Your task to perform on an android device: delete a single message in the gmail app Image 0: 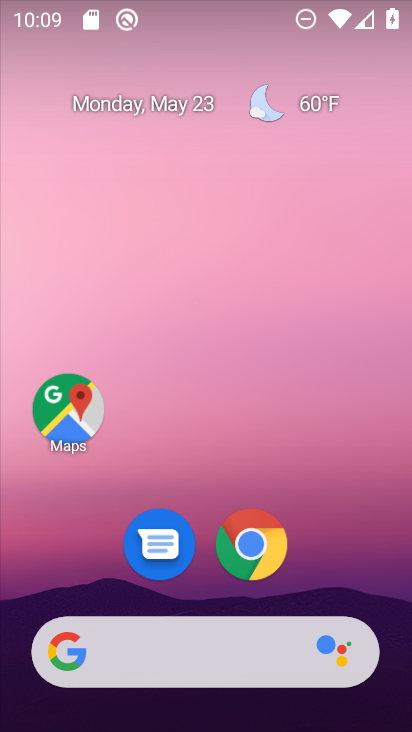
Step 0: drag from (332, 543) to (227, 221)
Your task to perform on an android device: delete a single message in the gmail app Image 1: 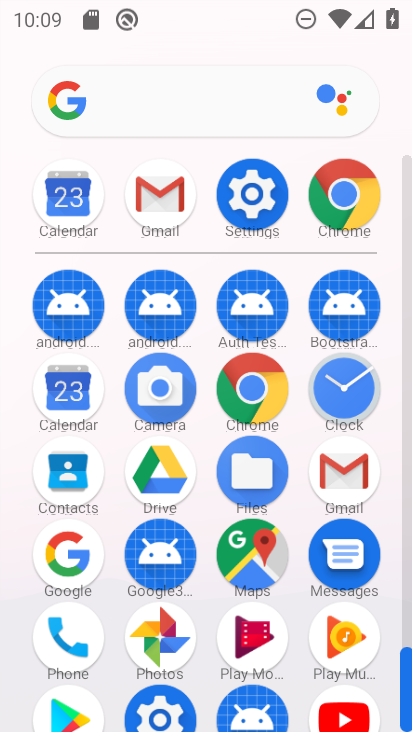
Step 1: click (357, 472)
Your task to perform on an android device: delete a single message in the gmail app Image 2: 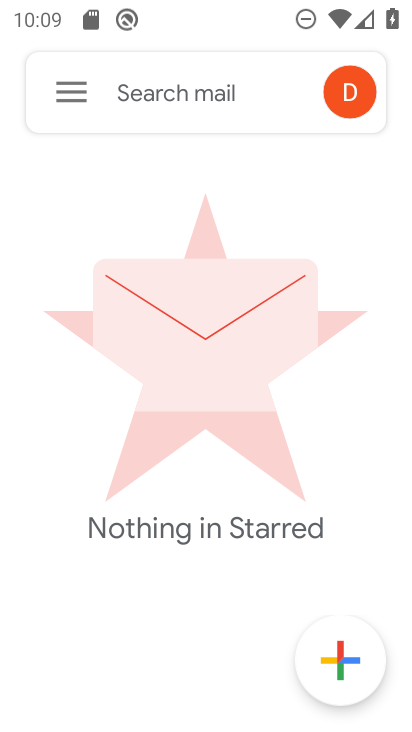
Step 2: click (66, 98)
Your task to perform on an android device: delete a single message in the gmail app Image 3: 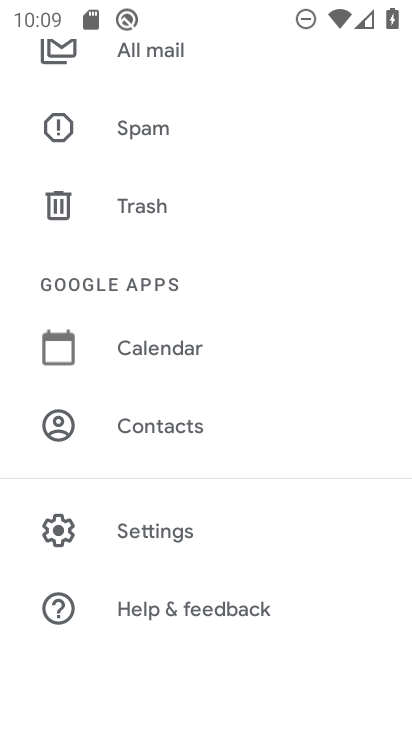
Step 3: drag from (195, 214) to (233, 720)
Your task to perform on an android device: delete a single message in the gmail app Image 4: 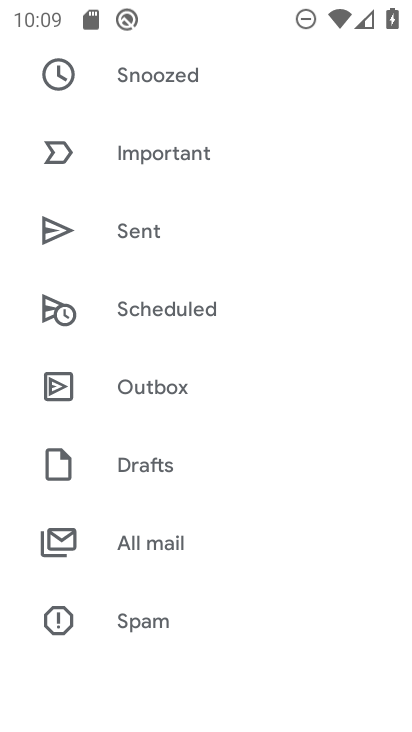
Step 4: drag from (245, 289) to (285, 616)
Your task to perform on an android device: delete a single message in the gmail app Image 5: 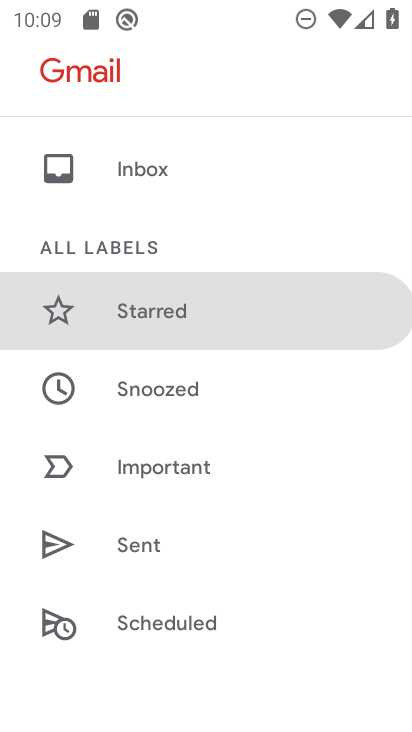
Step 5: click (134, 158)
Your task to perform on an android device: delete a single message in the gmail app Image 6: 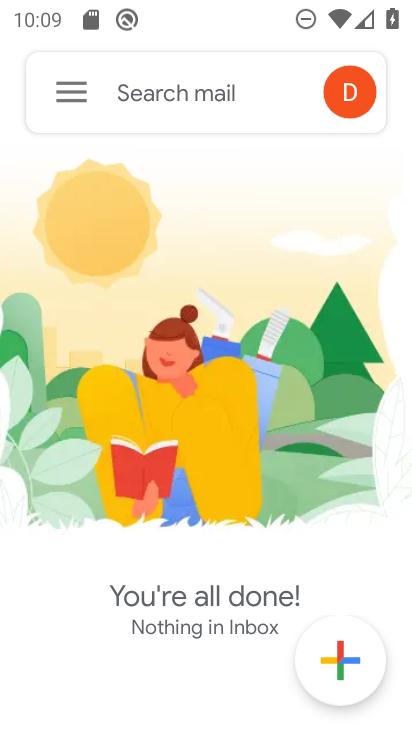
Step 6: task complete